Your task to perform on an android device: toggle pop-ups in chrome Image 0: 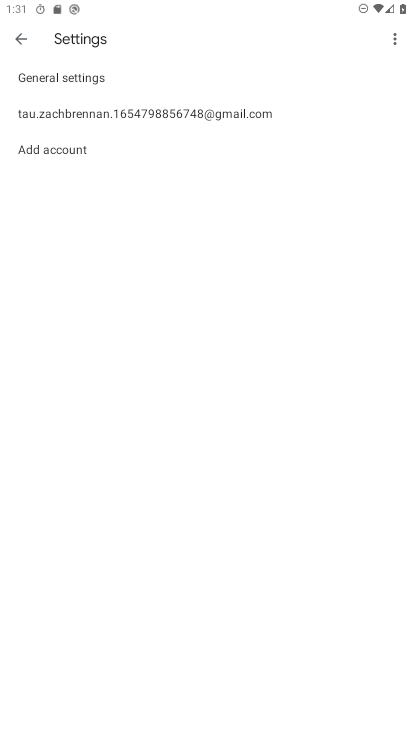
Step 0: press home button
Your task to perform on an android device: toggle pop-ups in chrome Image 1: 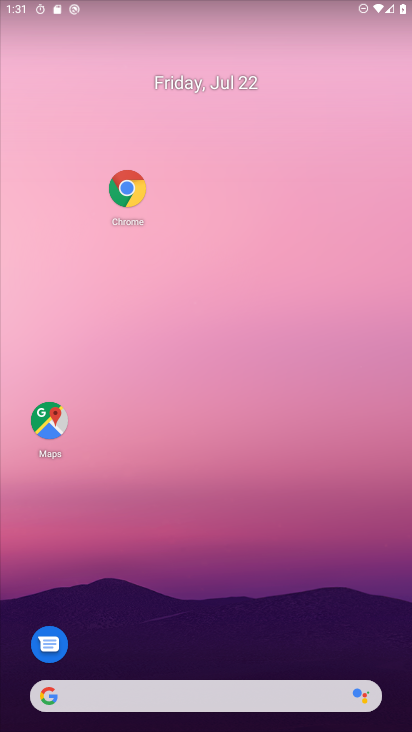
Step 1: click (113, 184)
Your task to perform on an android device: toggle pop-ups in chrome Image 2: 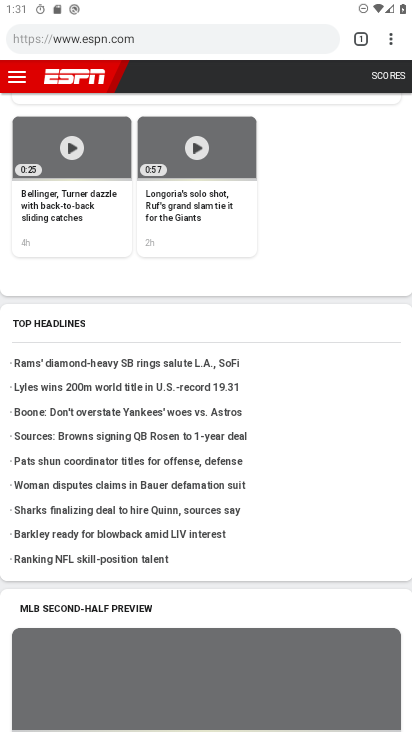
Step 2: click (397, 39)
Your task to perform on an android device: toggle pop-ups in chrome Image 3: 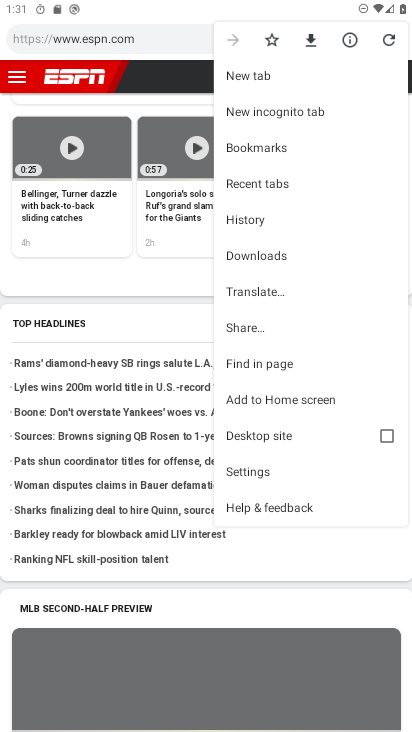
Step 3: click (260, 474)
Your task to perform on an android device: toggle pop-ups in chrome Image 4: 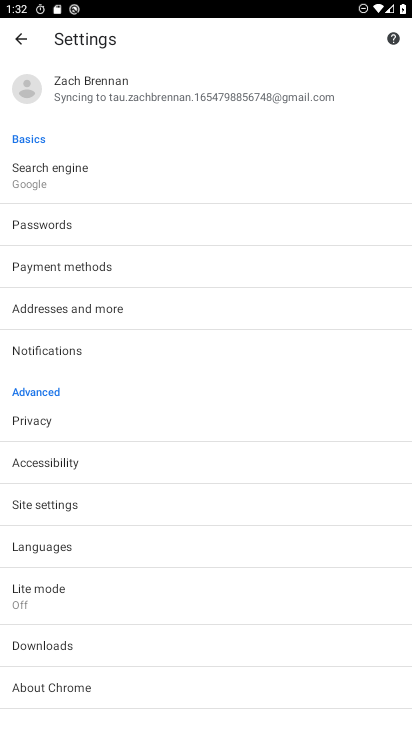
Step 4: click (148, 506)
Your task to perform on an android device: toggle pop-ups in chrome Image 5: 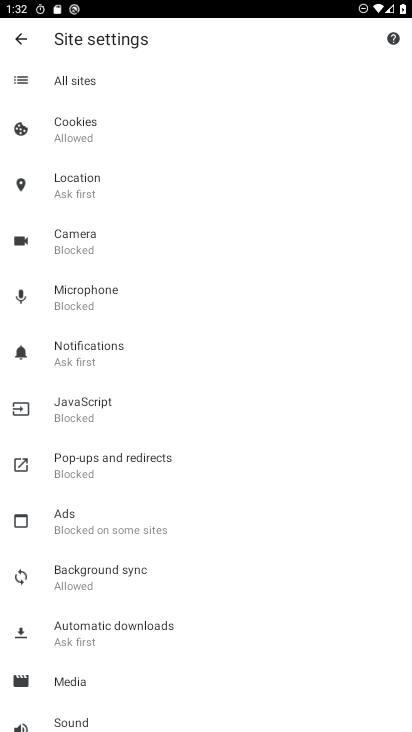
Step 5: click (106, 466)
Your task to perform on an android device: toggle pop-ups in chrome Image 6: 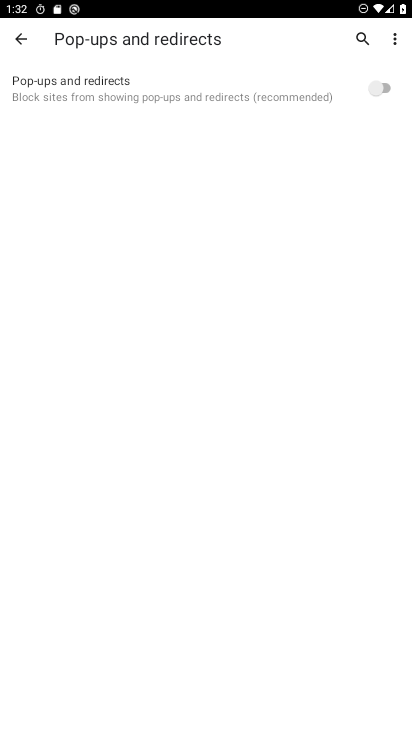
Step 6: click (389, 90)
Your task to perform on an android device: toggle pop-ups in chrome Image 7: 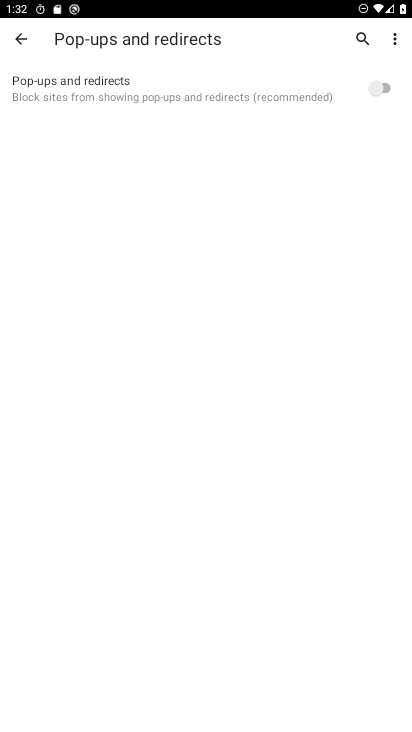
Step 7: click (389, 90)
Your task to perform on an android device: toggle pop-ups in chrome Image 8: 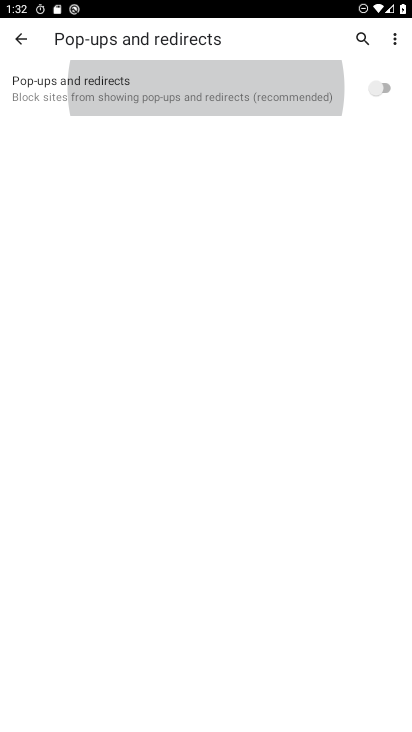
Step 8: click (389, 90)
Your task to perform on an android device: toggle pop-ups in chrome Image 9: 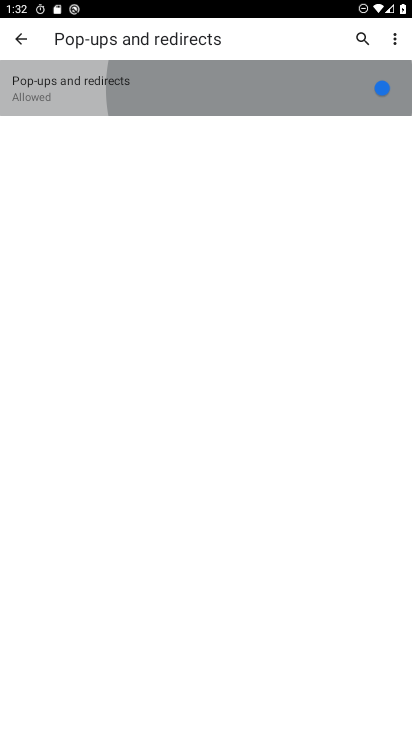
Step 9: click (389, 90)
Your task to perform on an android device: toggle pop-ups in chrome Image 10: 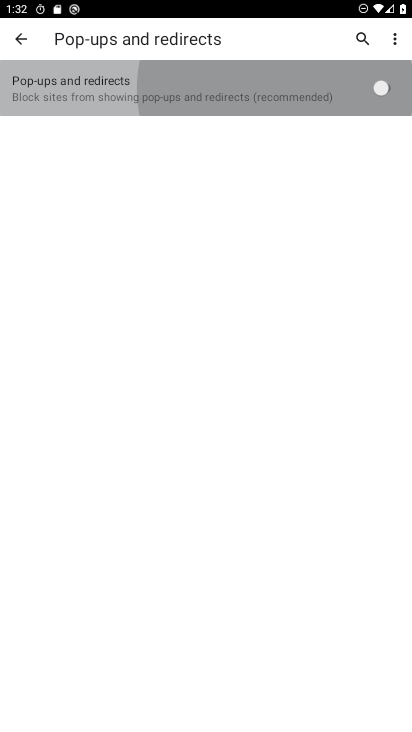
Step 10: click (389, 90)
Your task to perform on an android device: toggle pop-ups in chrome Image 11: 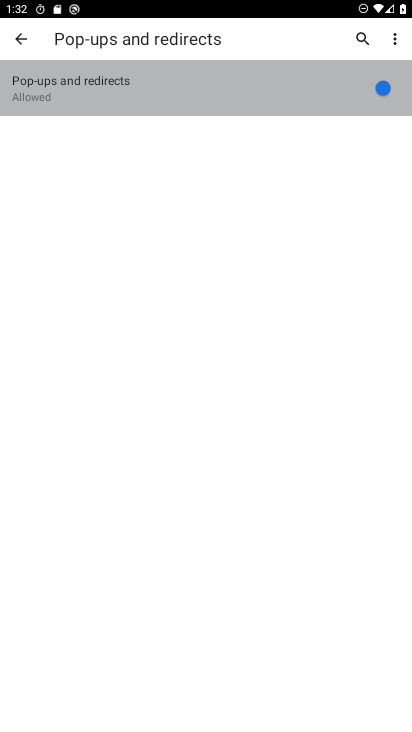
Step 11: click (389, 90)
Your task to perform on an android device: toggle pop-ups in chrome Image 12: 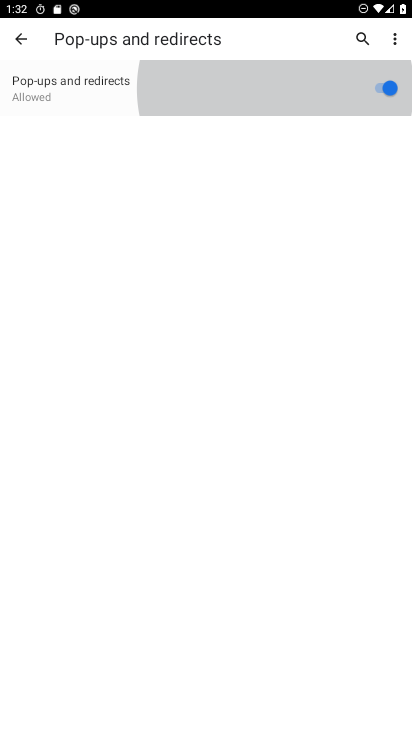
Step 12: click (389, 90)
Your task to perform on an android device: toggle pop-ups in chrome Image 13: 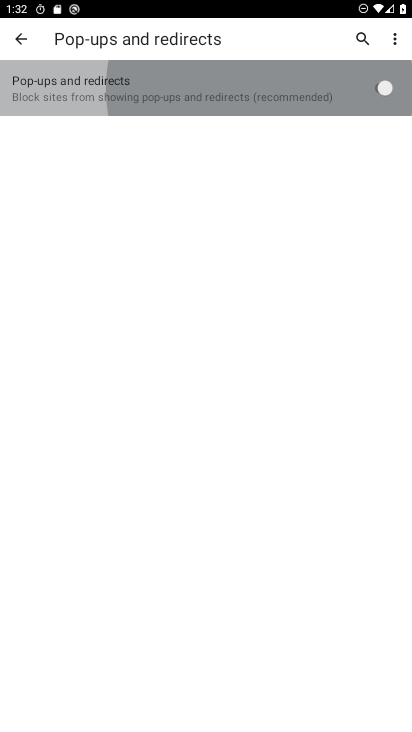
Step 13: click (389, 90)
Your task to perform on an android device: toggle pop-ups in chrome Image 14: 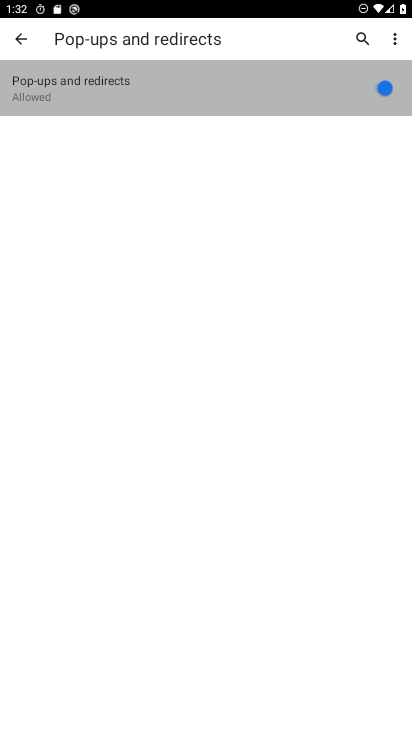
Step 14: click (389, 90)
Your task to perform on an android device: toggle pop-ups in chrome Image 15: 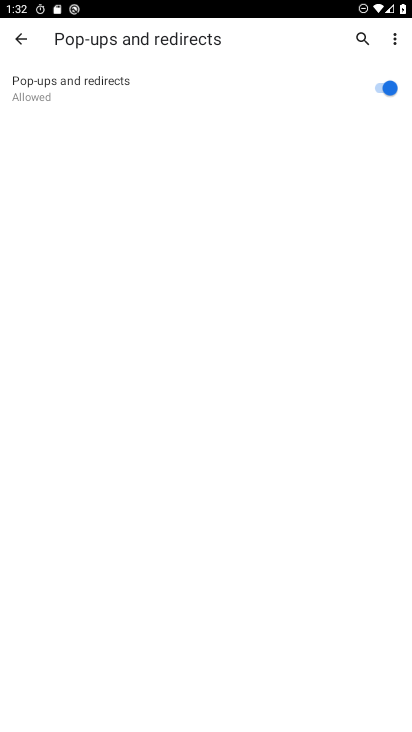
Step 15: click (389, 90)
Your task to perform on an android device: toggle pop-ups in chrome Image 16: 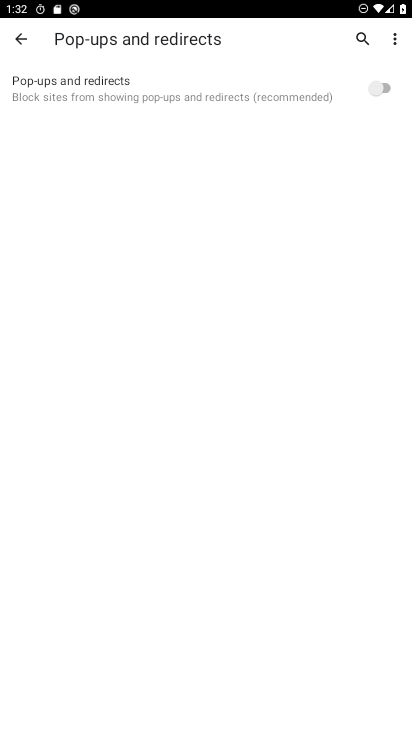
Step 16: task complete